Your task to perform on an android device: Go to Yahoo.com Image 0: 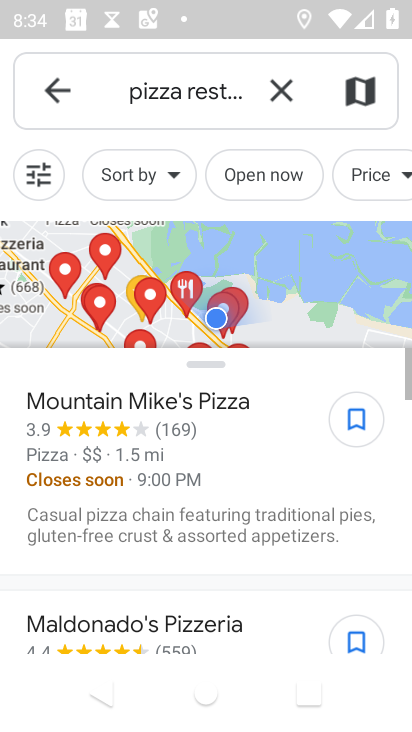
Step 0: press home button
Your task to perform on an android device: Go to Yahoo.com Image 1: 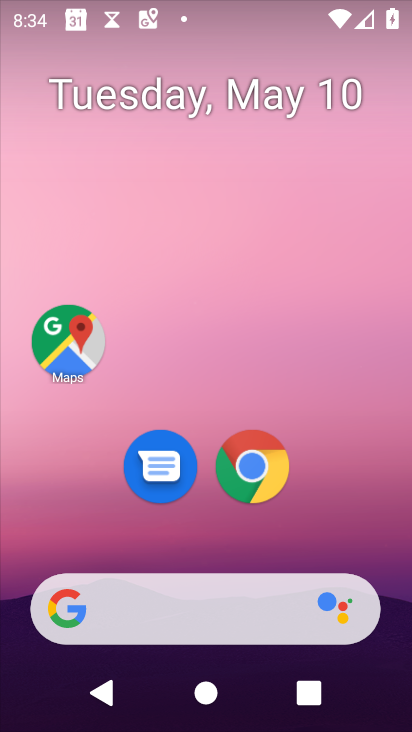
Step 1: click (256, 469)
Your task to perform on an android device: Go to Yahoo.com Image 2: 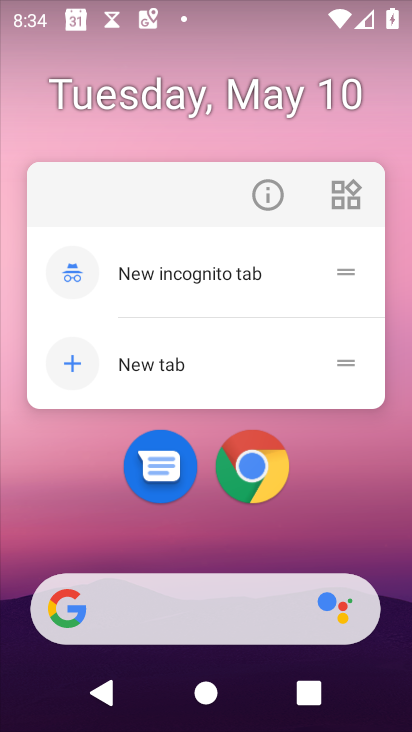
Step 2: click (256, 468)
Your task to perform on an android device: Go to Yahoo.com Image 3: 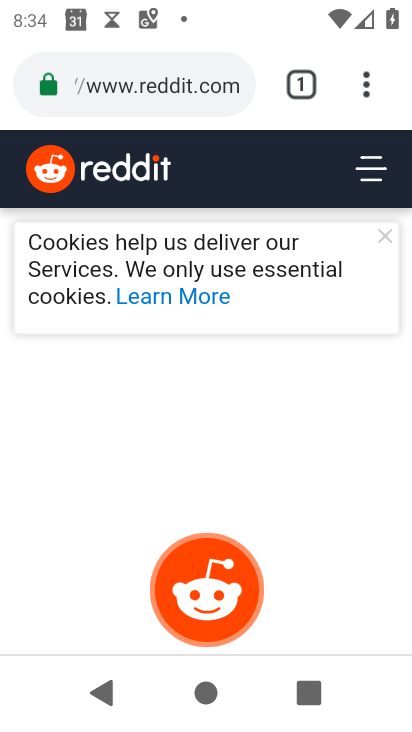
Step 3: click (209, 80)
Your task to perform on an android device: Go to Yahoo.com Image 4: 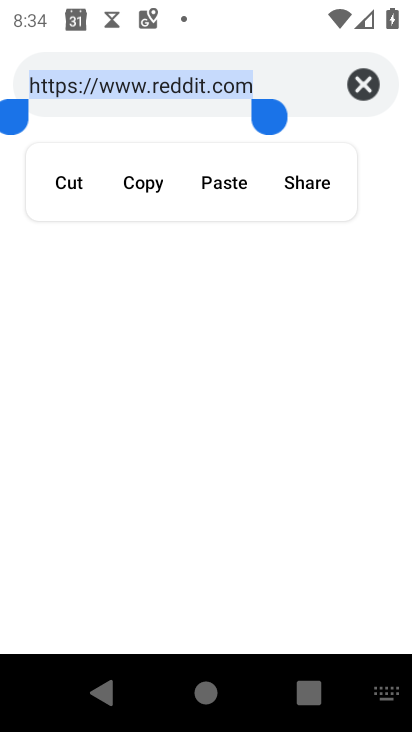
Step 4: type "yahoo.com"
Your task to perform on an android device: Go to Yahoo.com Image 5: 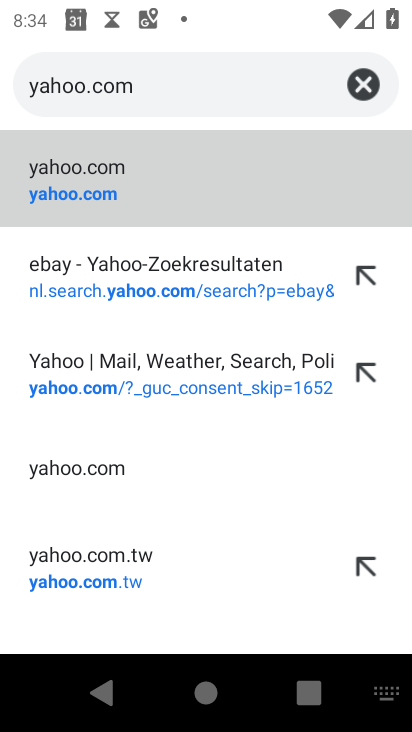
Step 5: click (178, 184)
Your task to perform on an android device: Go to Yahoo.com Image 6: 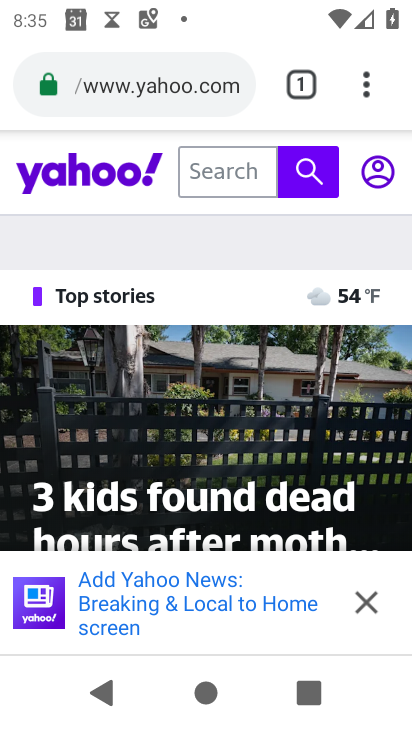
Step 6: task complete